Your task to perform on an android device: turn off location history Image 0: 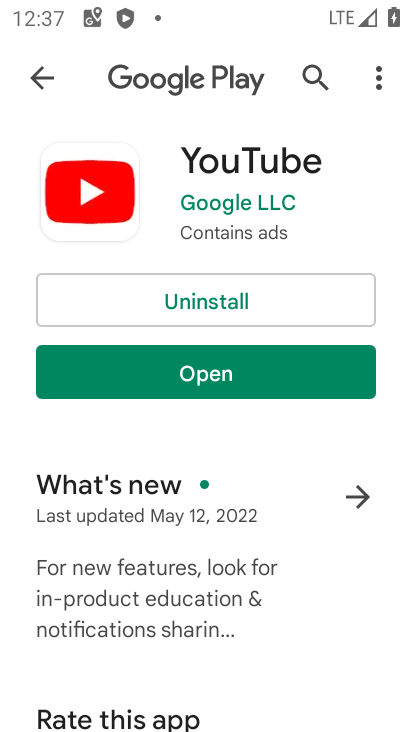
Step 0: press home button
Your task to perform on an android device: turn off location history Image 1: 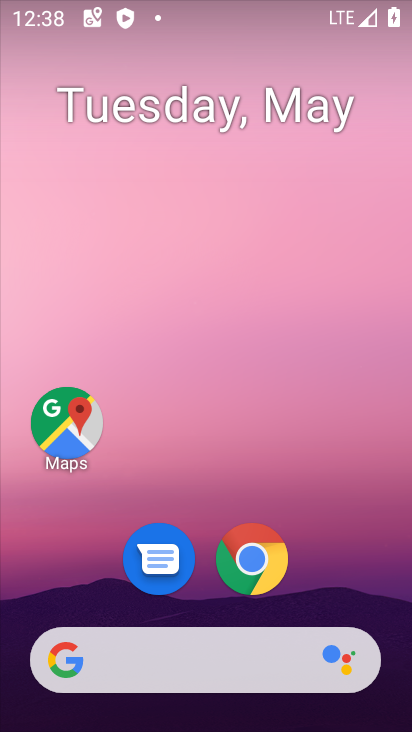
Step 1: drag from (348, 565) to (316, 86)
Your task to perform on an android device: turn off location history Image 2: 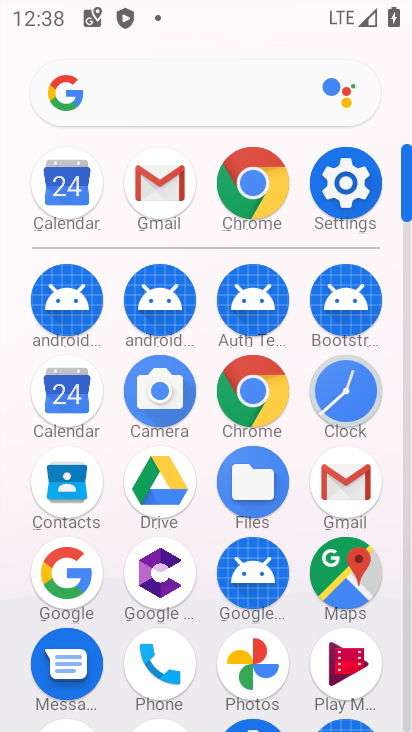
Step 2: click (361, 205)
Your task to perform on an android device: turn off location history Image 3: 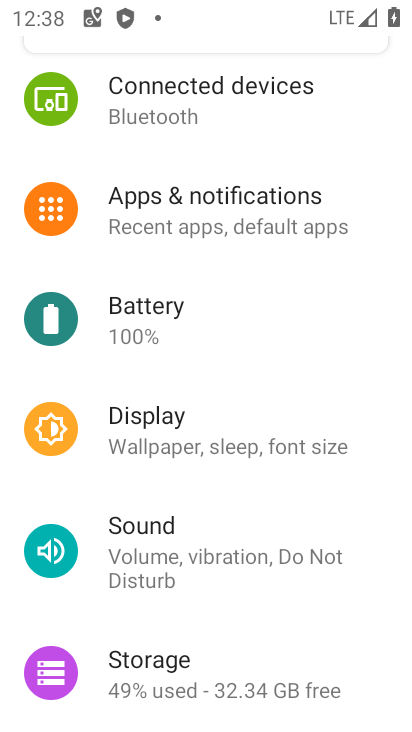
Step 3: drag from (231, 625) to (205, 323)
Your task to perform on an android device: turn off location history Image 4: 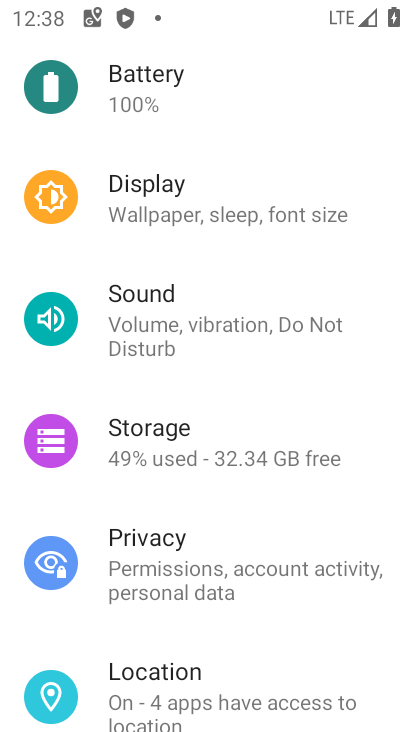
Step 4: click (151, 666)
Your task to perform on an android device: turn off location history Image 5: 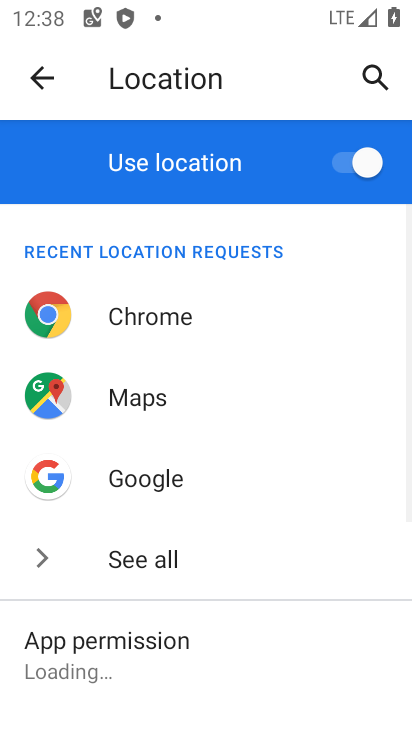
Step 5: click (340, 139)
Your task to perform on an android device: turn off location history Image 6: 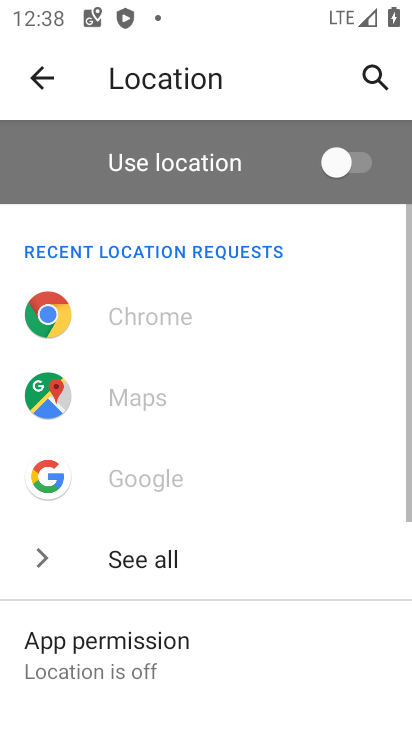
Step 6: task complete